Your task to perform on an android device: Go to Google Image 0: 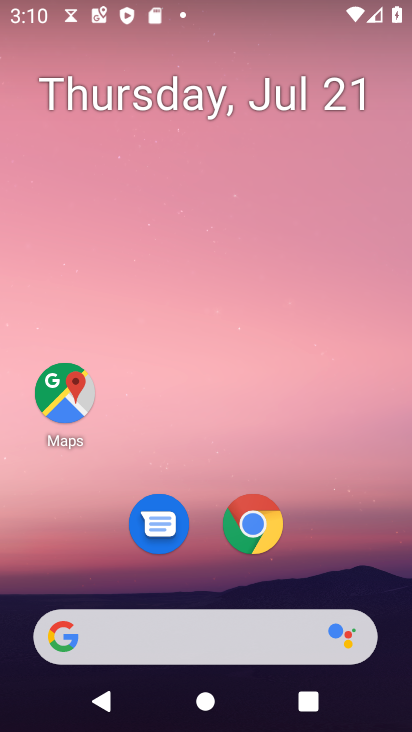
Step 0: press home button
Your task to perform on an android device: Go to Google Image 1: 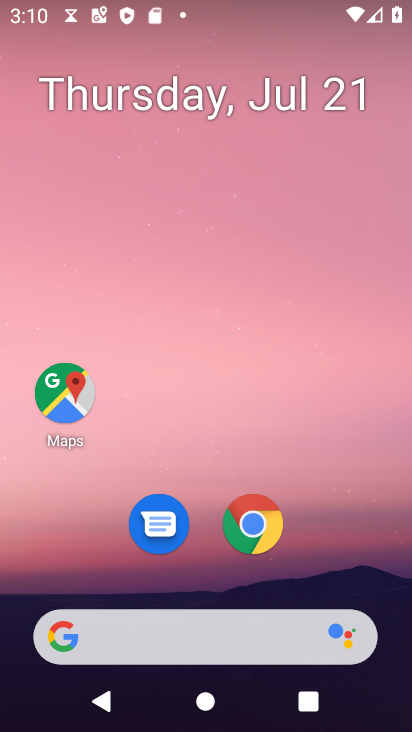
Step 1: drag from (216, 630) to (330, 100)
Your task to perform on an android device: Go to Google Image 2: 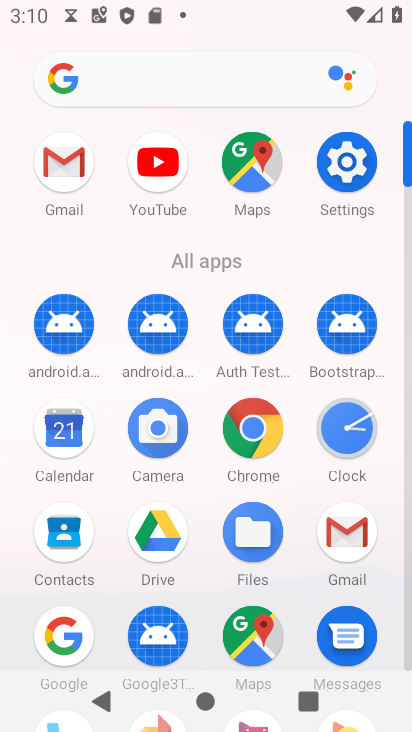
Step 2: click (74, 635)
Your task to perform on an android device: Go to Google Image 3: 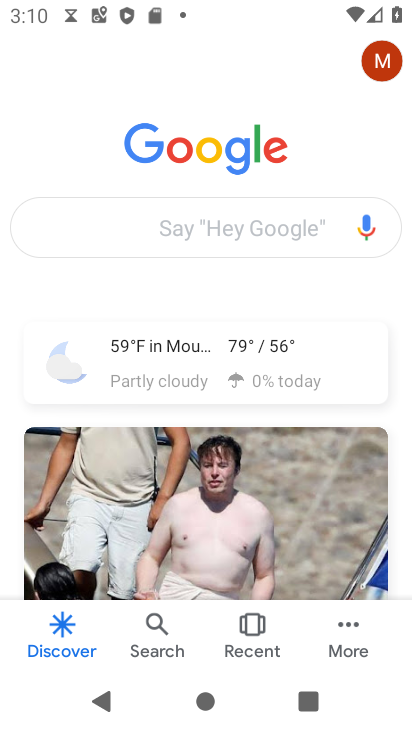
Step 3: task complete